Your task to perform on an android device: turn on javascript in the chrome app Image 0: 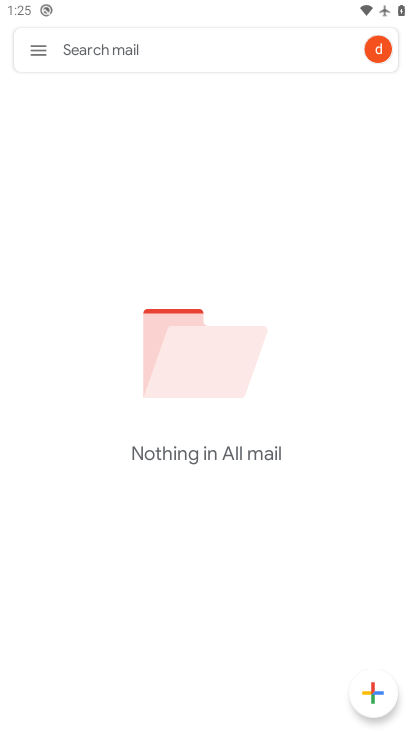
Step 0: press home button
Your task to perform on an android device: turn on javascript in the chrome app Image 1: 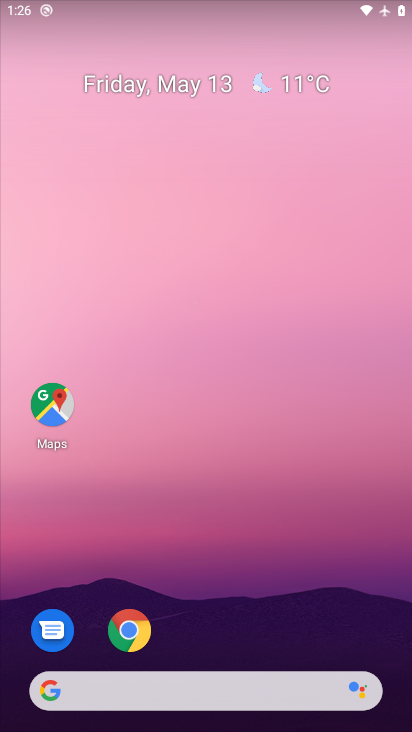
Step 1: drag from (237, 608) to (317, 225)
Your task to perform on an android device: turn on javascript in the chrome app Image 2: 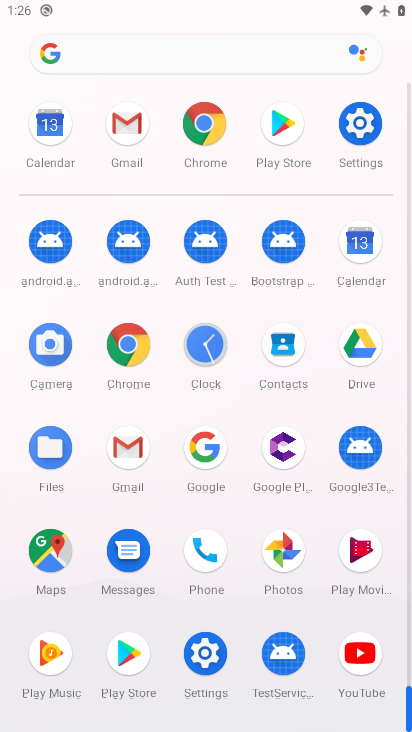
Step 2: click (133, 355)
Your task to perform on an android device: turn on javascript in the chrome app Image 3: 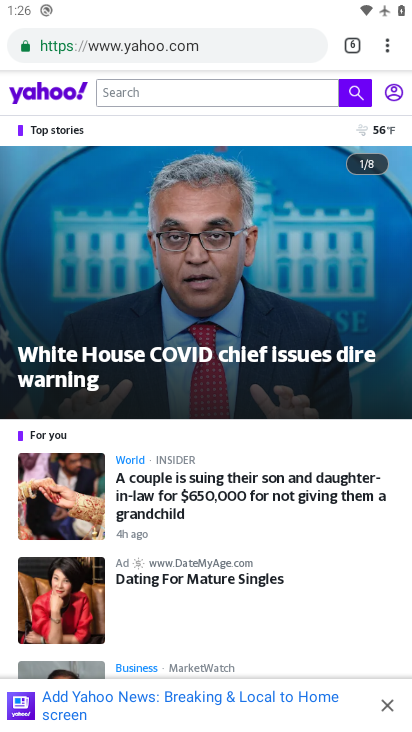
Step 3: click (386, 48)
Your task to perform on an android device: turn on javascript in the chrome app Image 4: 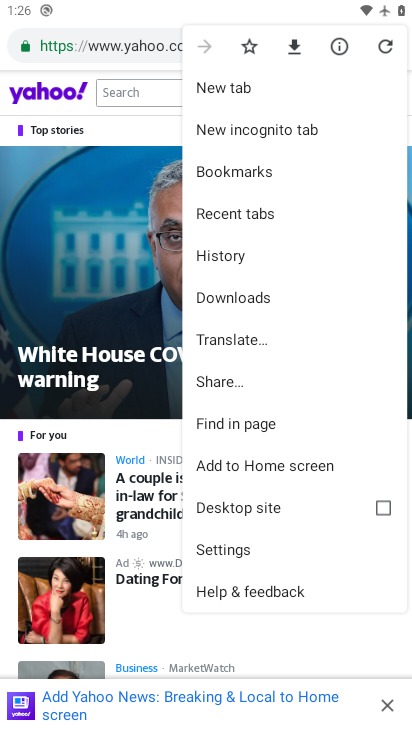
Step 4: click (239, 554)
Your task to perform on an android device: turn on javascript in the chrome app Image 5: 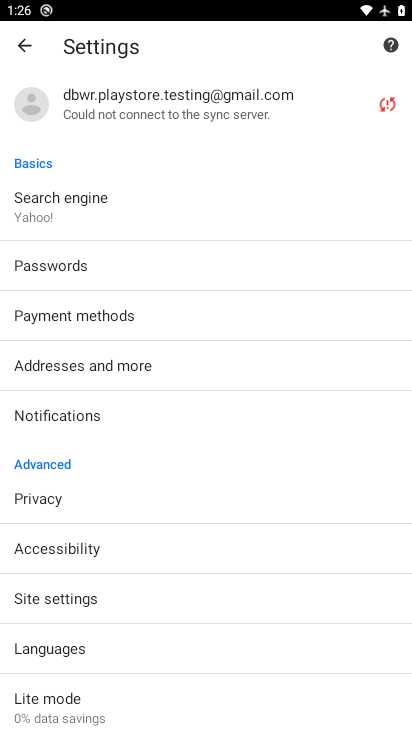
Step 5: click (75, 588)
Your task to perform on an android device: turn on javascript in the chrome app Image 6: 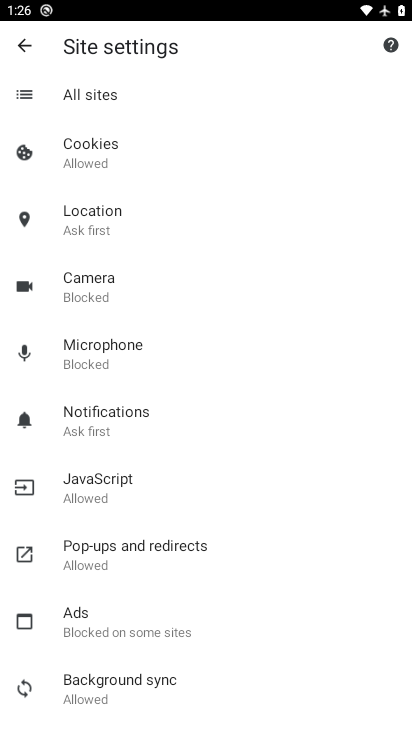
Step 6: click (97, 495)
Your task to perform on an android device: turn on javascript in the chrome app Image 7: 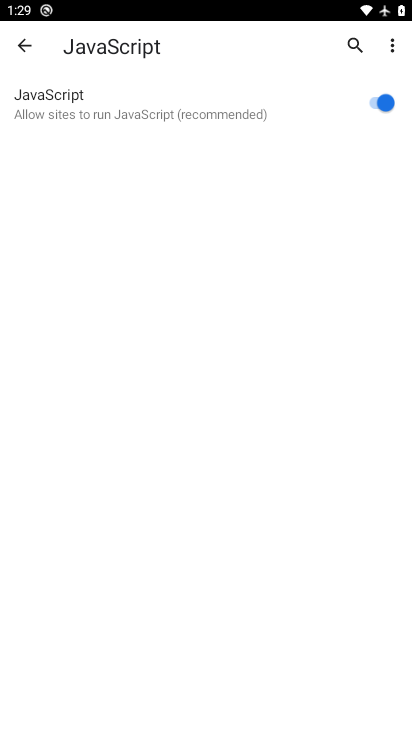
Step 7: task complete